Your task to perform on an android device: turn off translation in the chrome app Image 0: 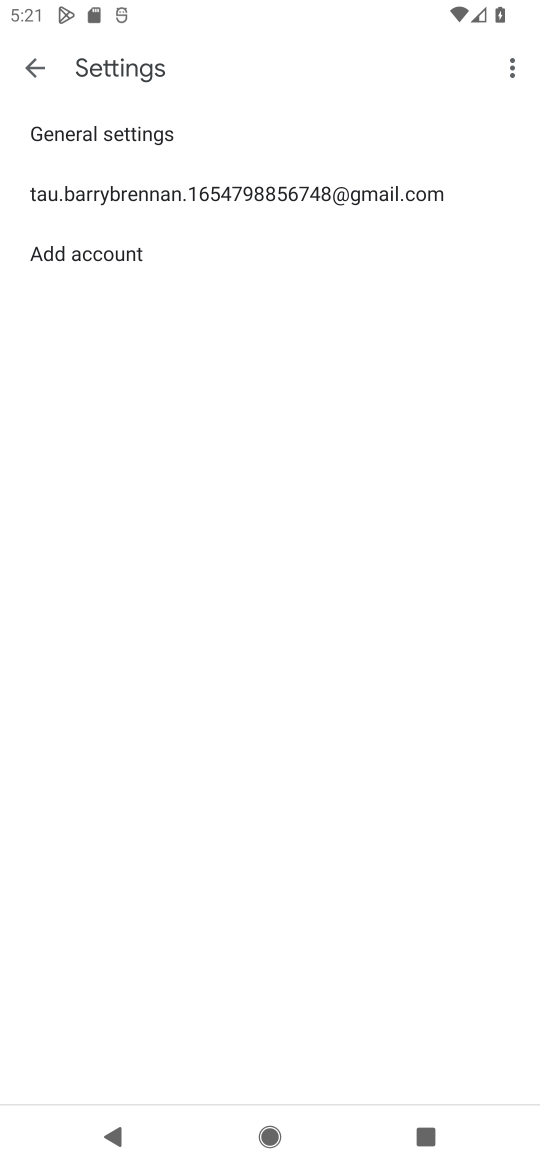
Step 0: press home button
Your task to perform on an android device: turn off translation in the chrome app Image 1: 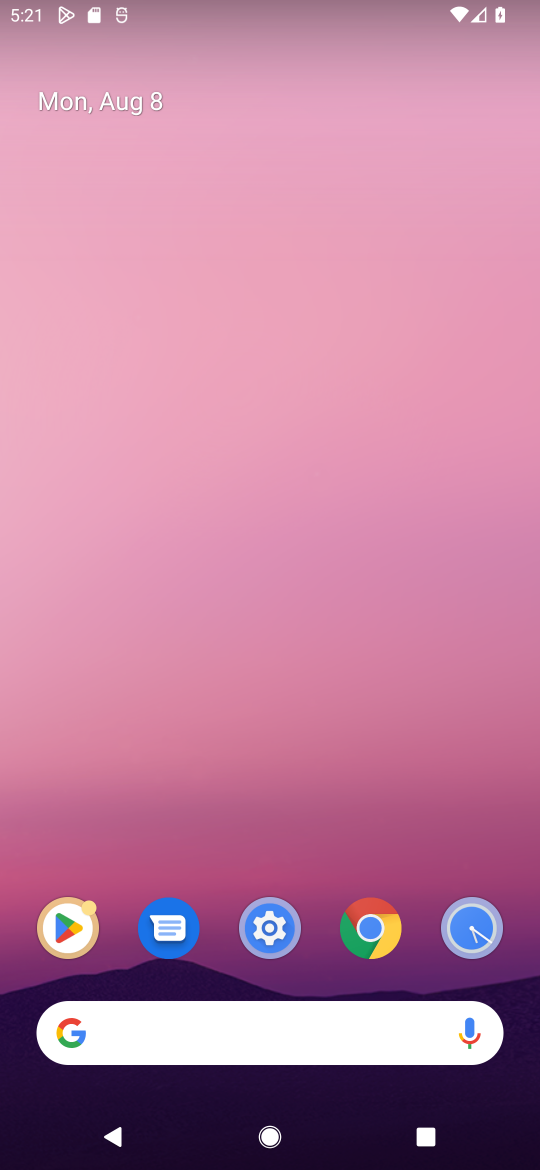
Step 1: click (382, 931)
Your task to perform on an android device: turn off translation in the chrome app Image 2: 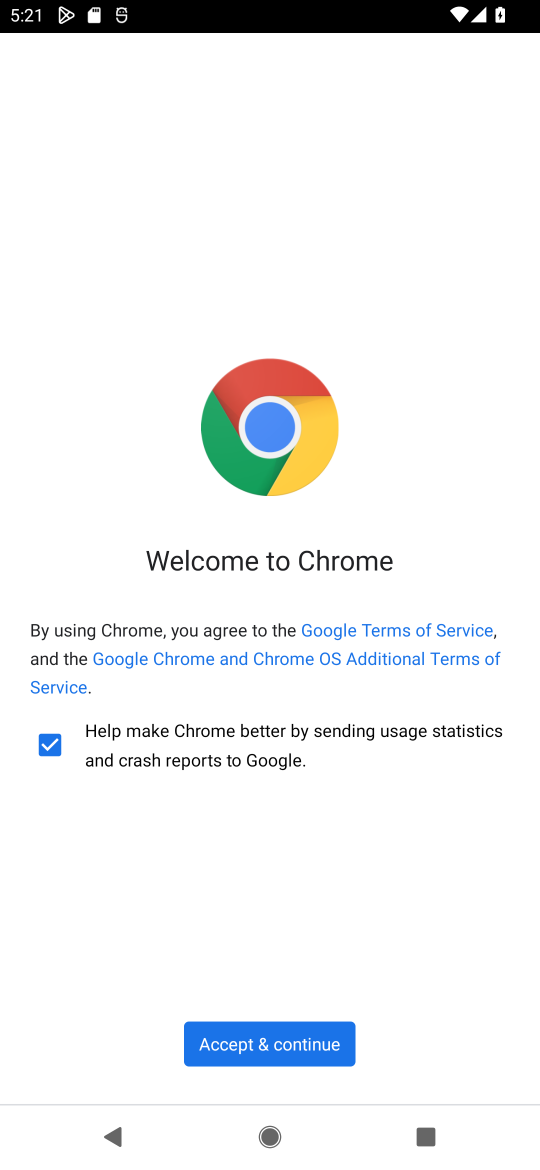
Step 2: click (257, 1036)
Your task to perform on an android device: turn off translation in the chrome app Image 3: 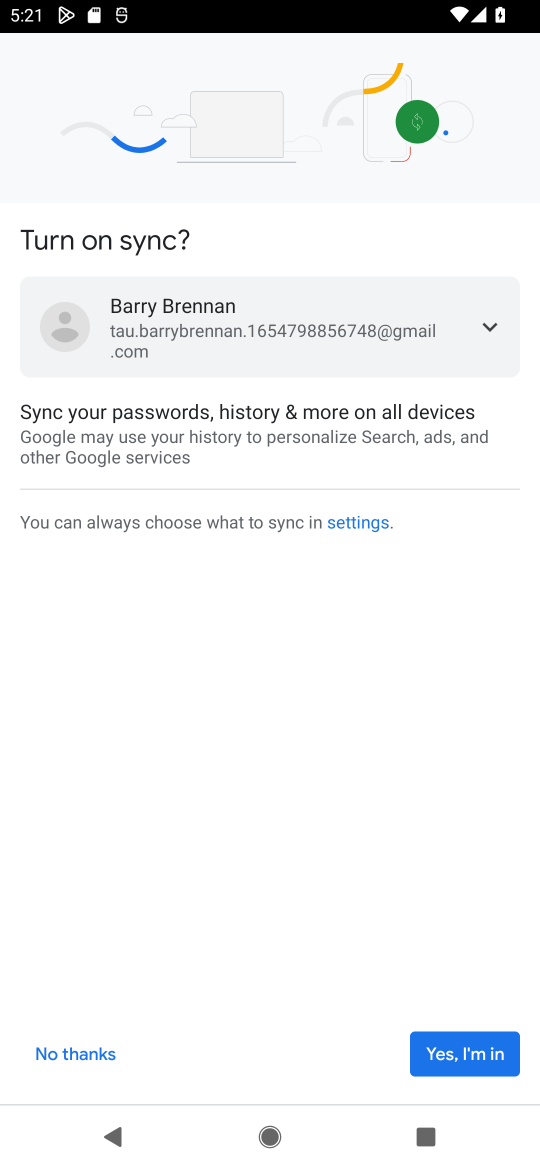
Step 3: click (475, 1048)
Your task to perform on an android device: turn off translation in the chrome app Image 4: 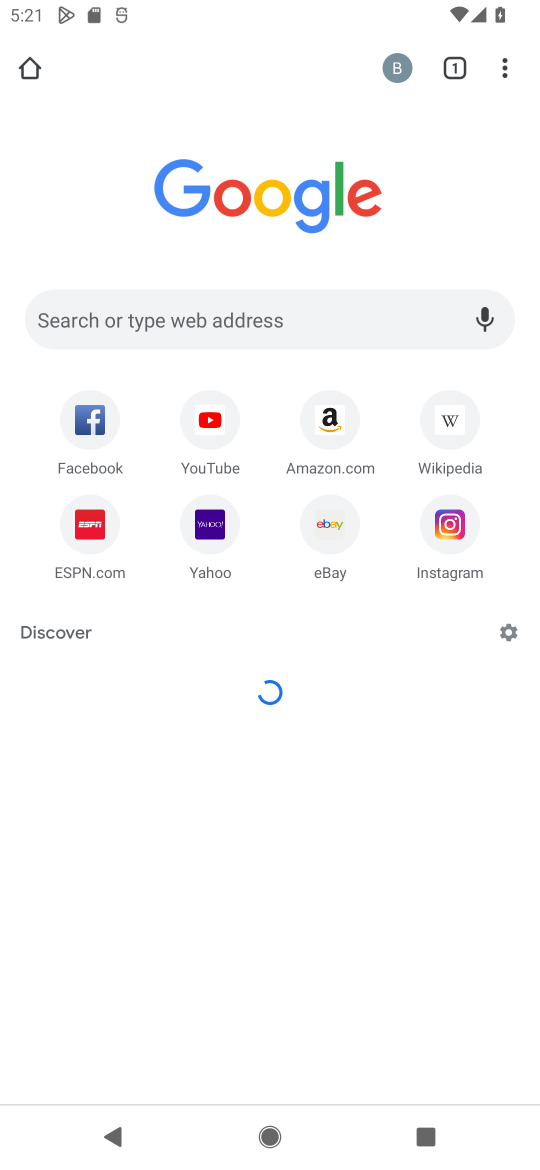
Step 4: click (510, 47)
Your task to perform on an android device: turn off translation in the chrome app Image 5: 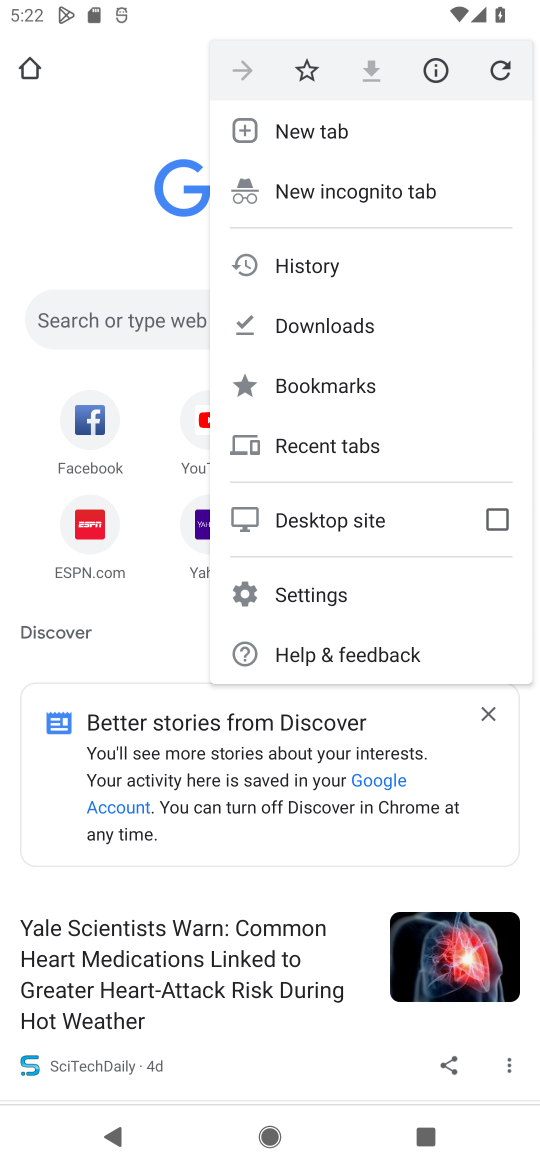
Step 5: click (338, 600)
Your task to perform on an android device: turn off translation in the chrome app Image 6: 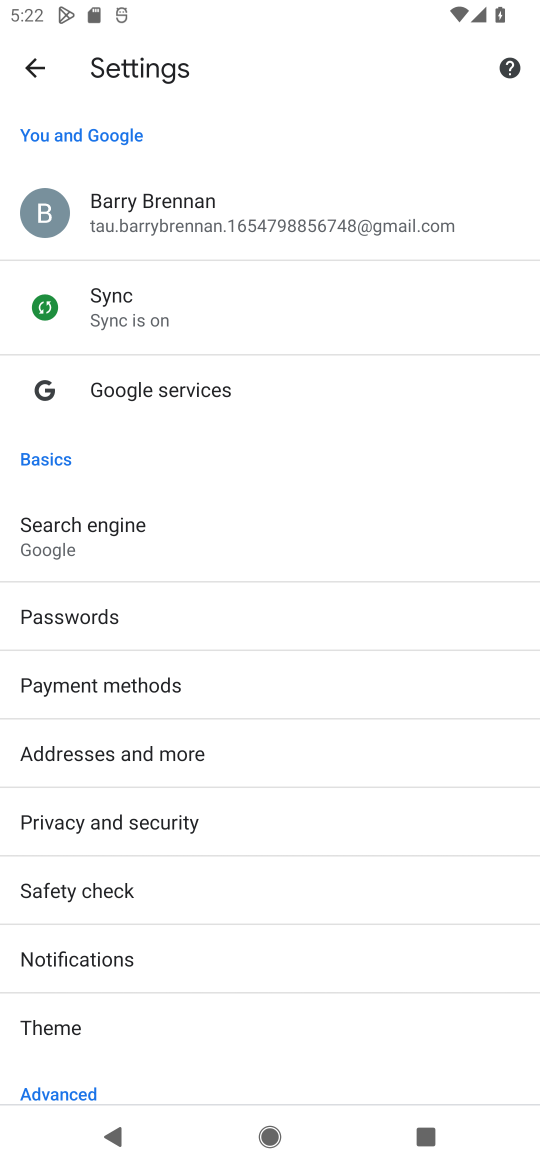
Step 6: drag from (145, 888) to (201, 662)
Your task to perform on an android device: turn off translation in the chrome app Image 7: 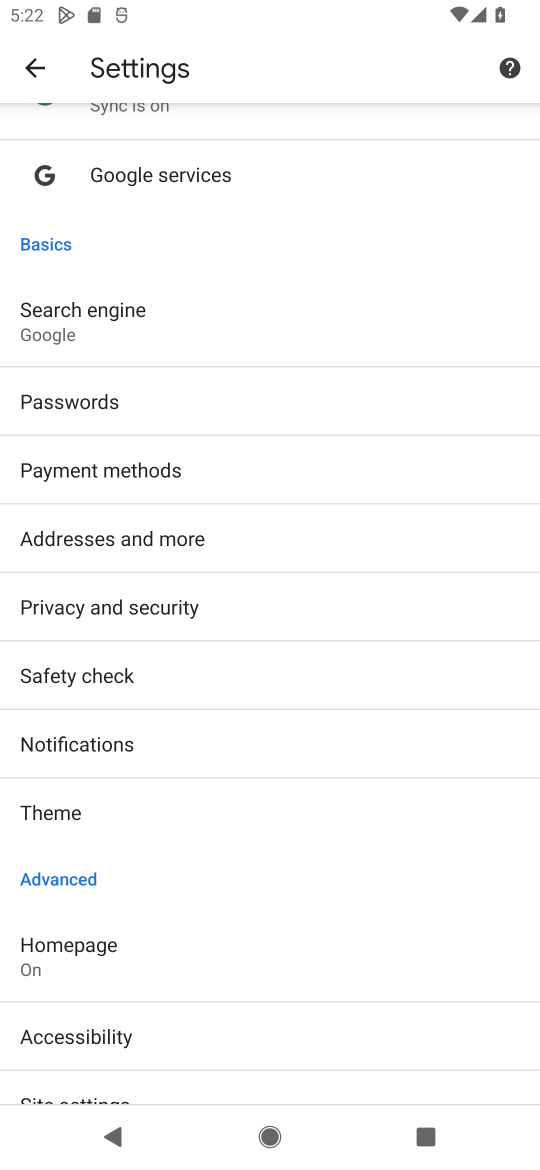
Step 7: drag from (136, 932) to (145, 474)
Your task to perform on an android device: turn off translation in the chrome app Image 8: 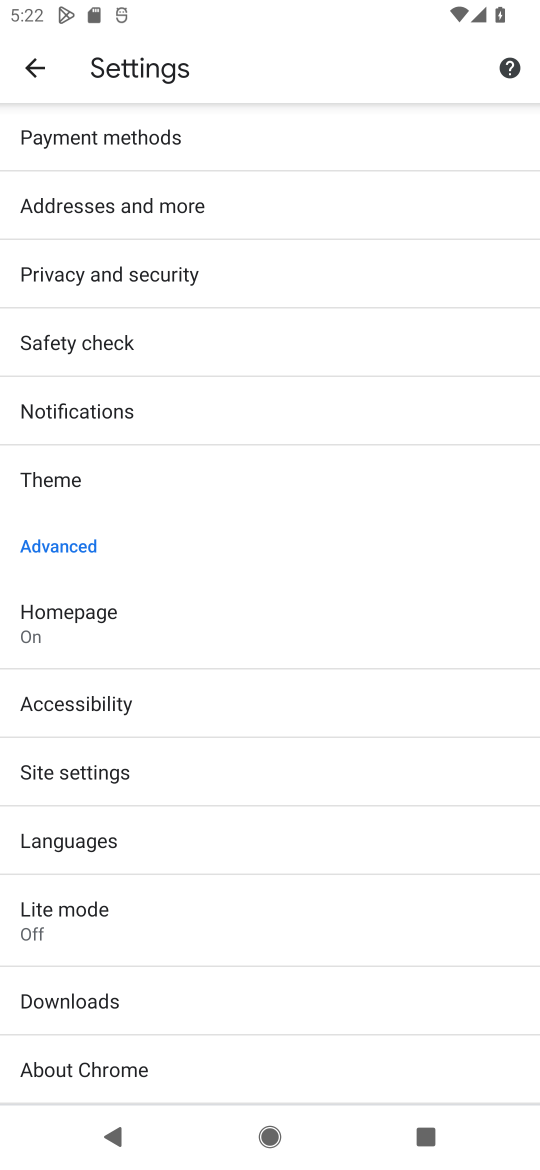
Step 8: click (120, 841)
Your task to perform on an android device: turn off translation in the chrome app Image 9: 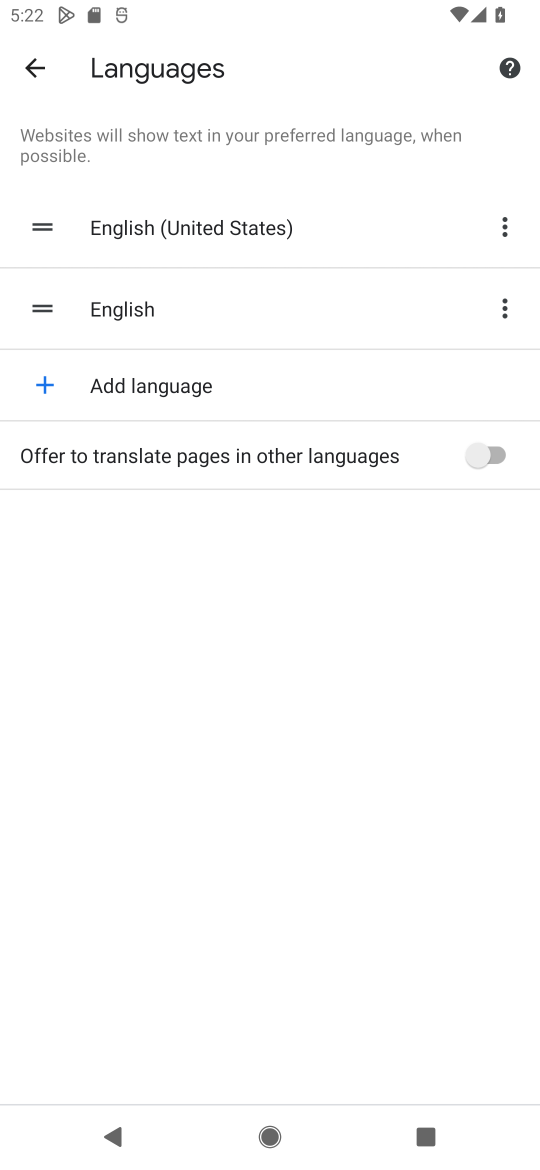
Step 9: task complete